Your task to perform on an android device: Search for "razer deathadder" on target.com, select the first entry, and add it to the cart. Image 0: 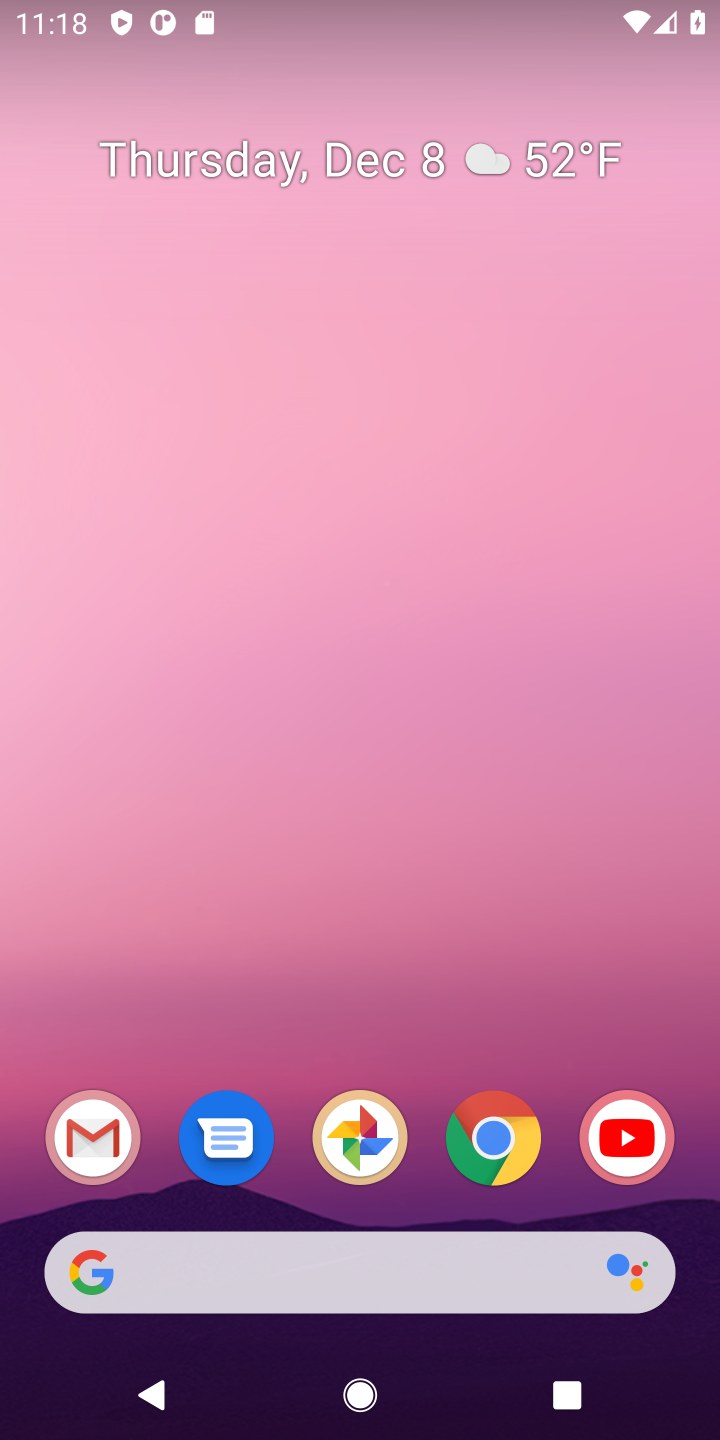
Step 0: click (498, 1137)
Your task to perform on an android device: Search for "razer deathadder" on target.com, select the first entry, and add it to the cart. Image 1: 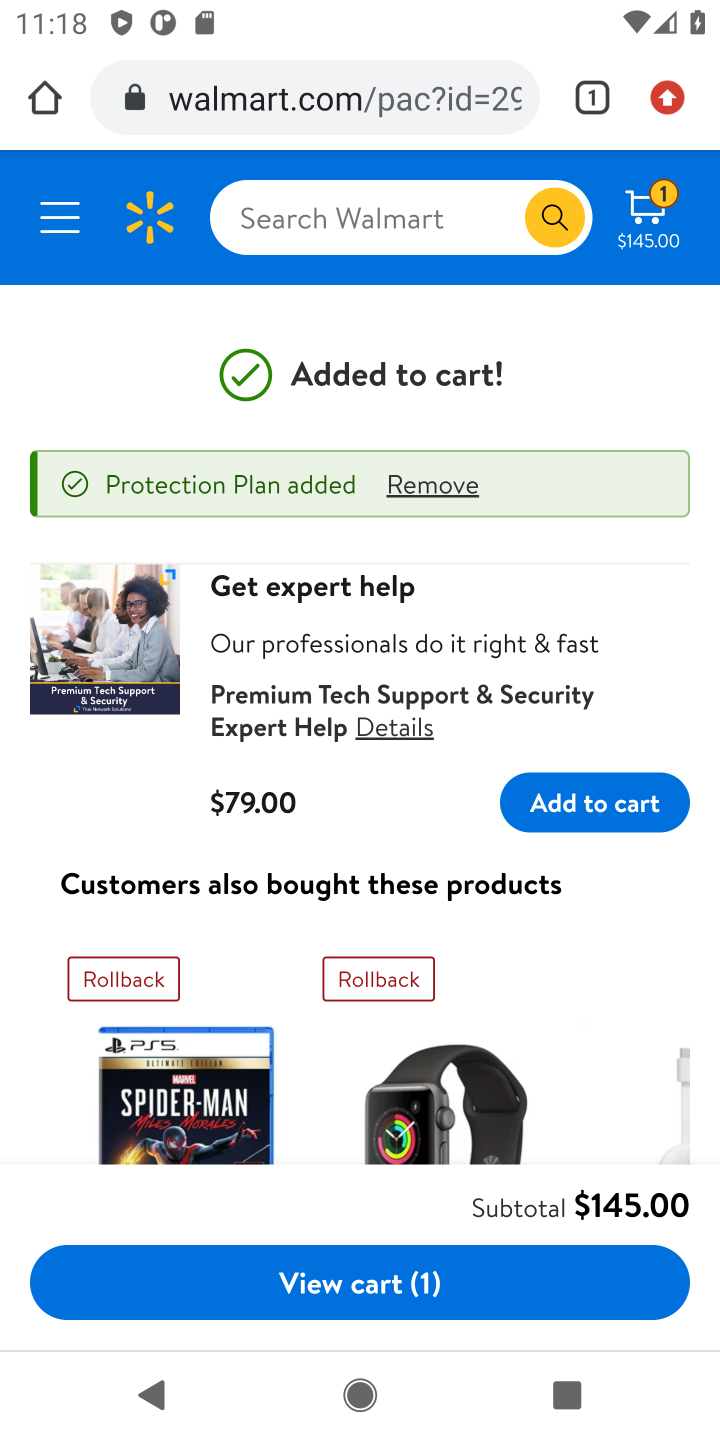
Step 1: click (220, 99)
Your task to perform on an android device: Search for "razer deathadder" on target.com, select the first entry, and add it to the cart. Image 2: 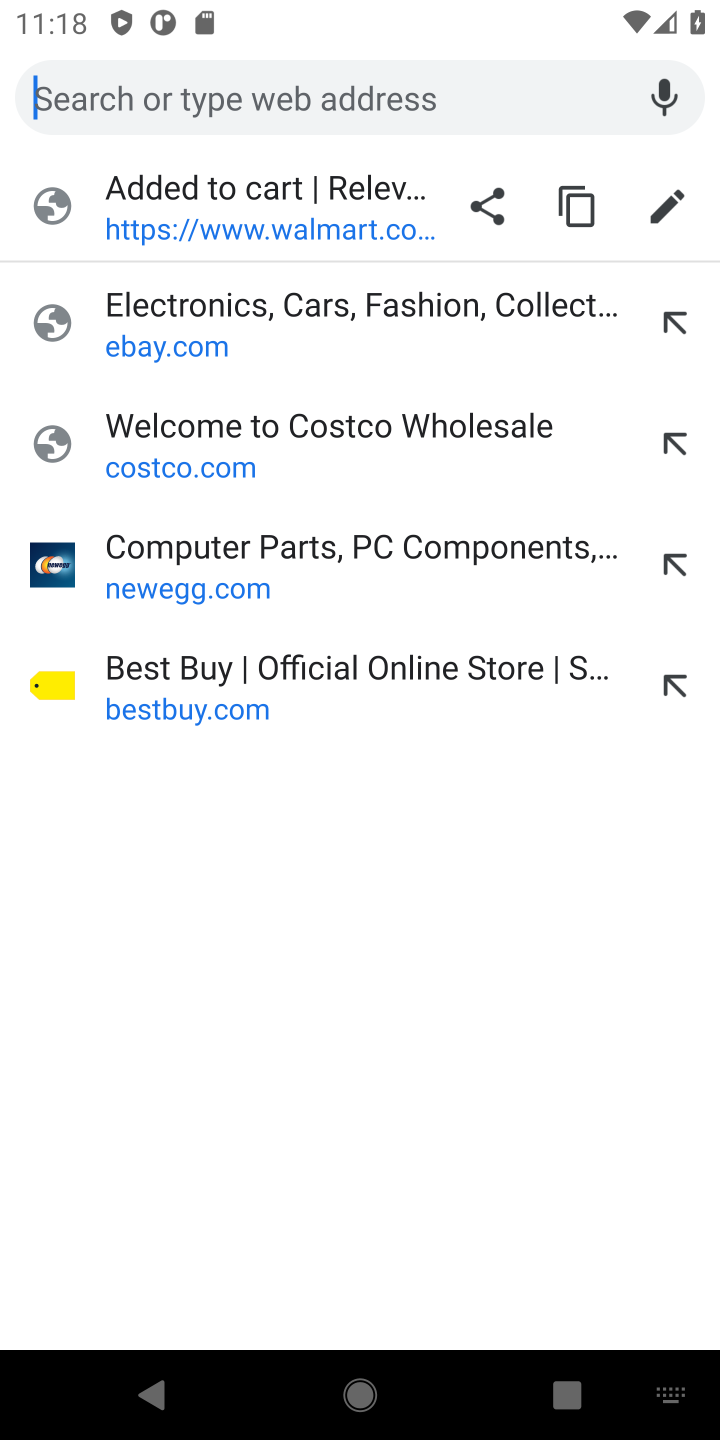
Step 2: type "target.com"
Your task to perform on an android device: Search for "razer deathadder" on target.com, select the first entry, and add it to the cart. Image 3: 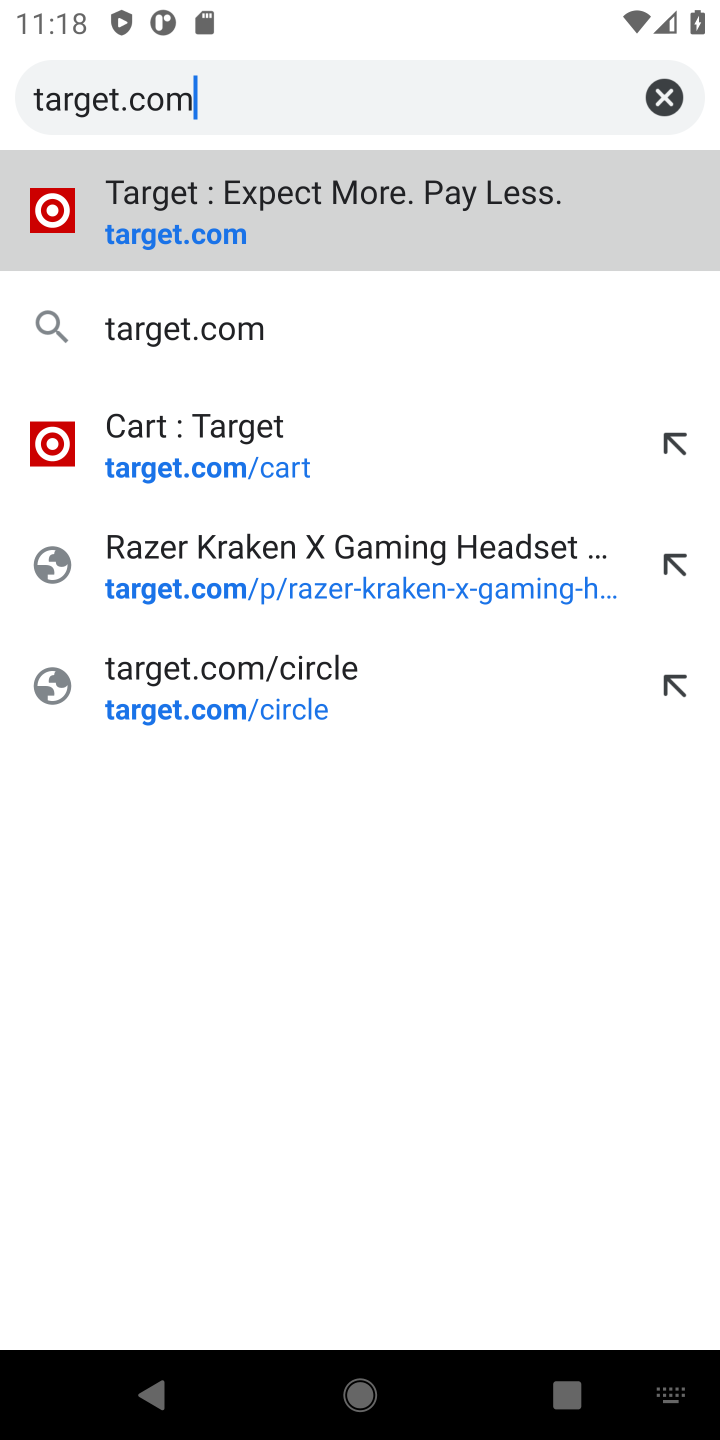
Step 3: click (367, 241)
Your task to perform on an android device: Search for "razer deathadder" on target.com, select the first entry, and add it to the cart. Image 4: 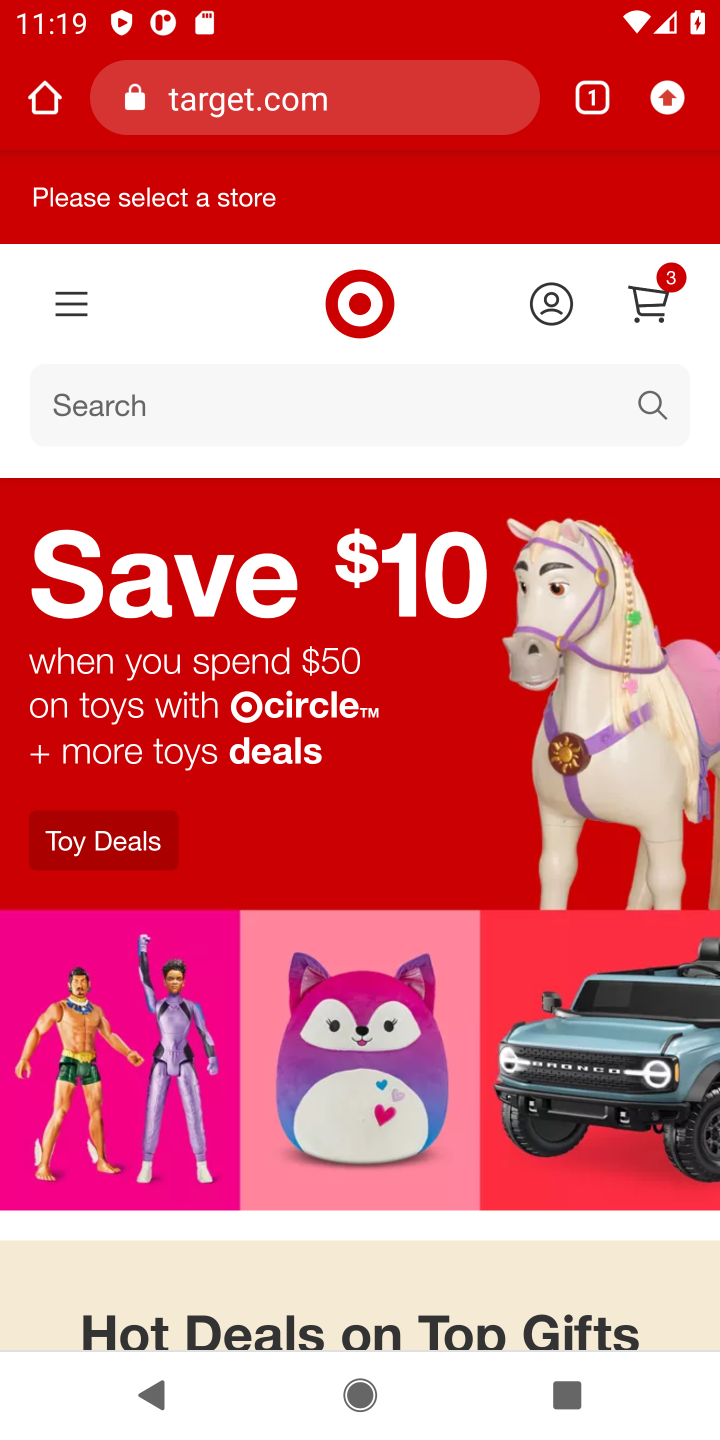
Step 4: click (273, 422)
Your task to perform on an android device: Search for "razer deathadder" on target.com, select the first entry, and add it to the cart. Image 5: 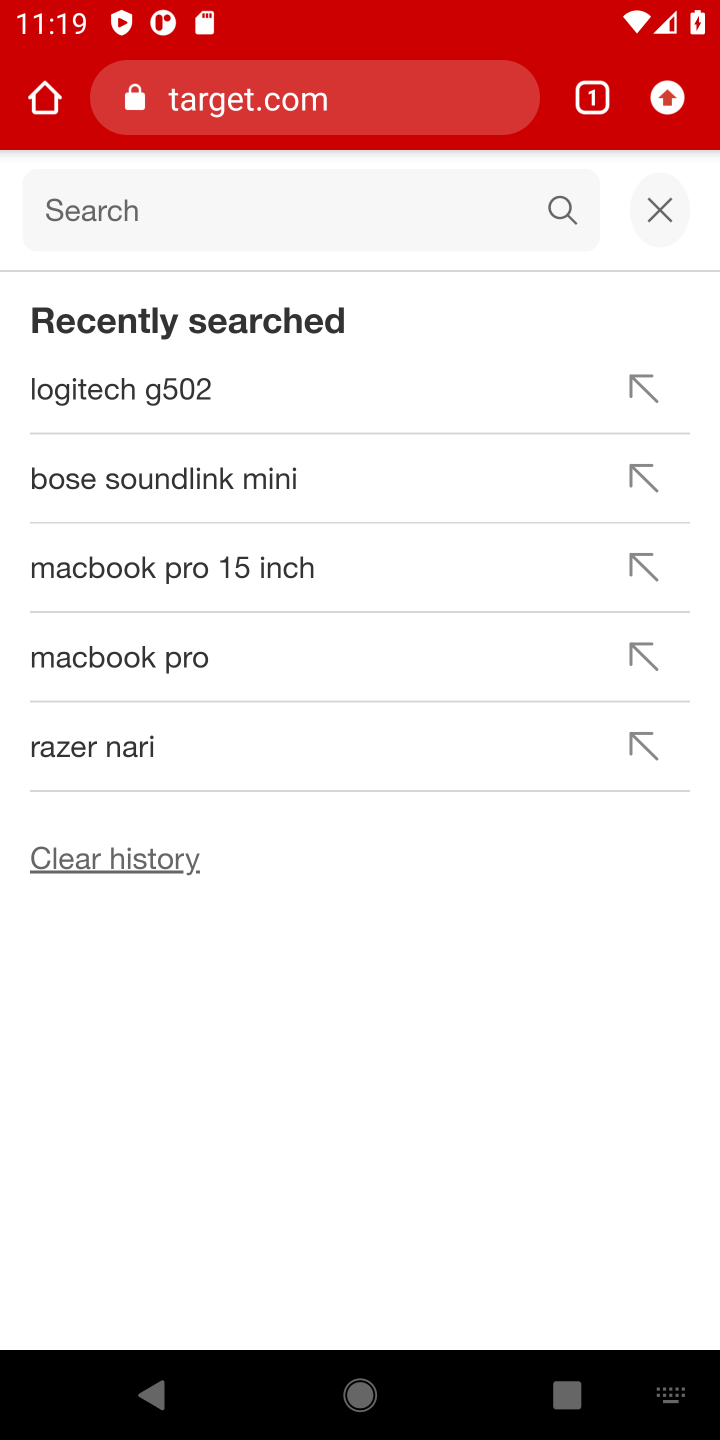
Step 5: type "razer deathadder"
Your task to perform on an android device: Search for "razer deathadder" on target.com, select the first entry, and add it to the cart. Image 6: 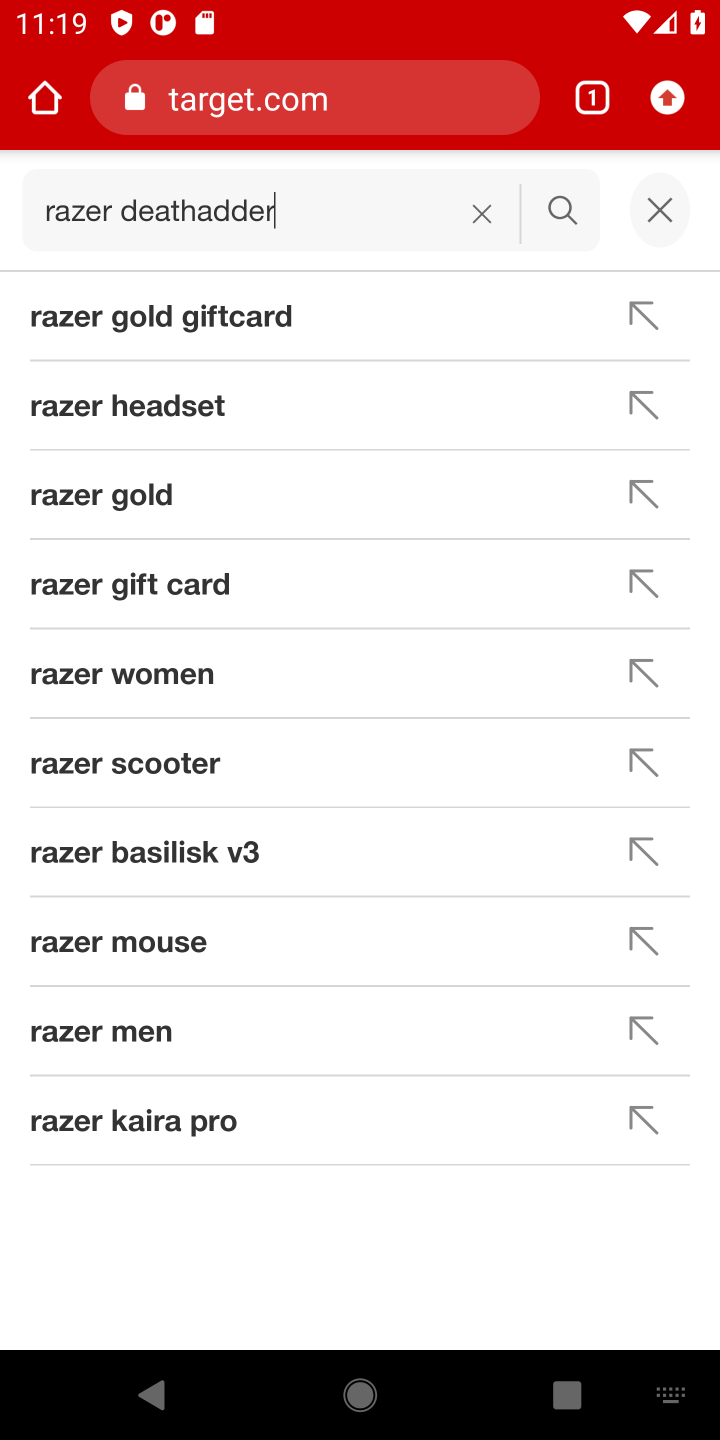
Step 6: press enter
Your task to perform on an android device: Search for "razer deathadder" on target.com, select the first entry, and add it to the cart. Image 7: 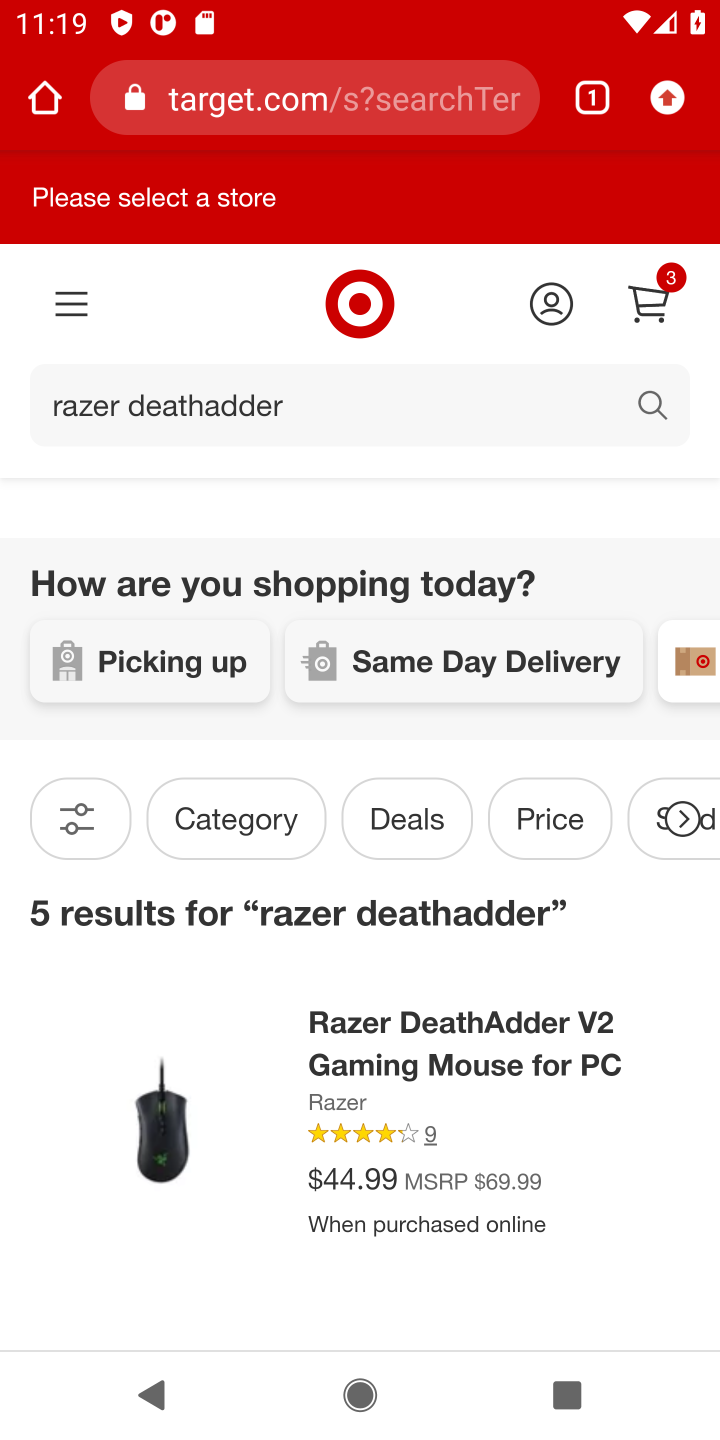
Step 7: drag from (571, 967) to (425, 724)
Your task to perform on an android device: Search for "razer deathadder" on target.com, select the first entry, and add it to the cart. Image 8: 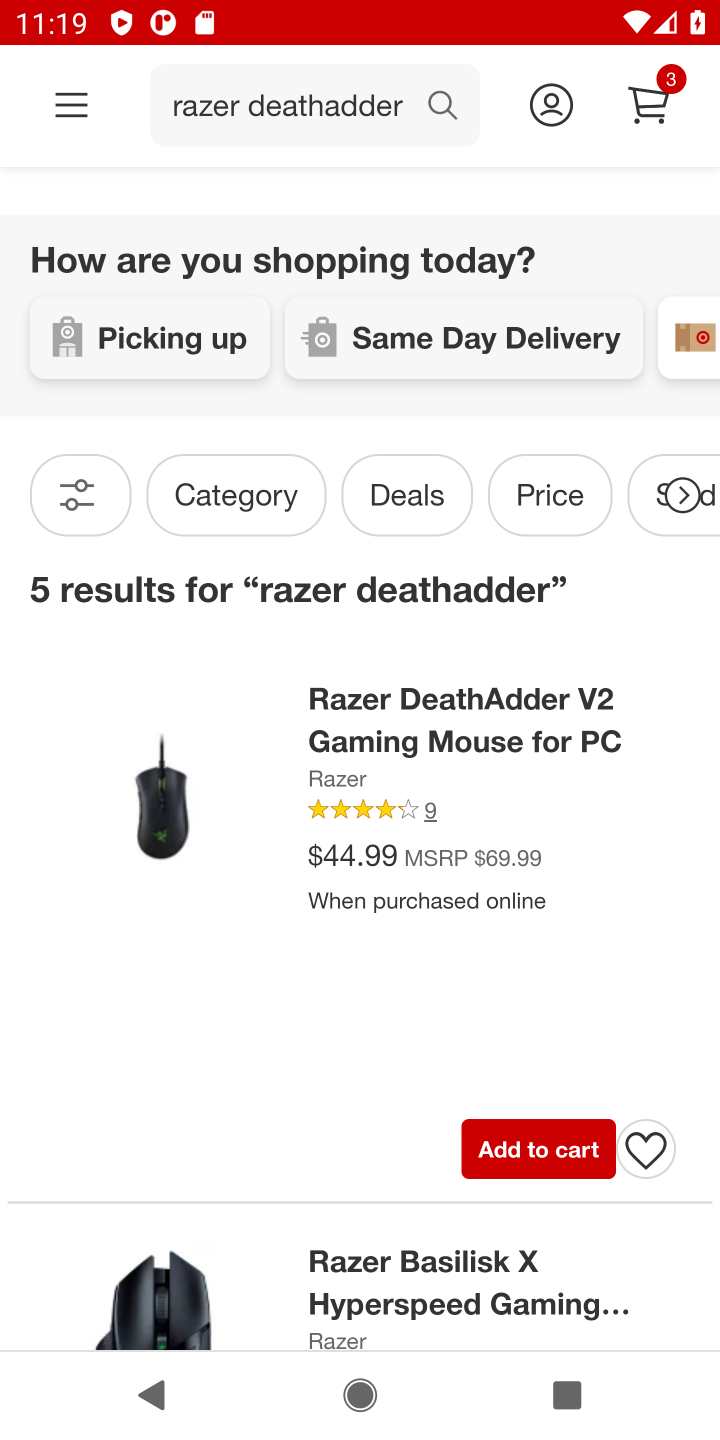
Step 8: click (572, 1152)
Your task to perform on an android device: Search for "razer deathadder" on target.com, select the first entry, and add it to the cart. Image 9: 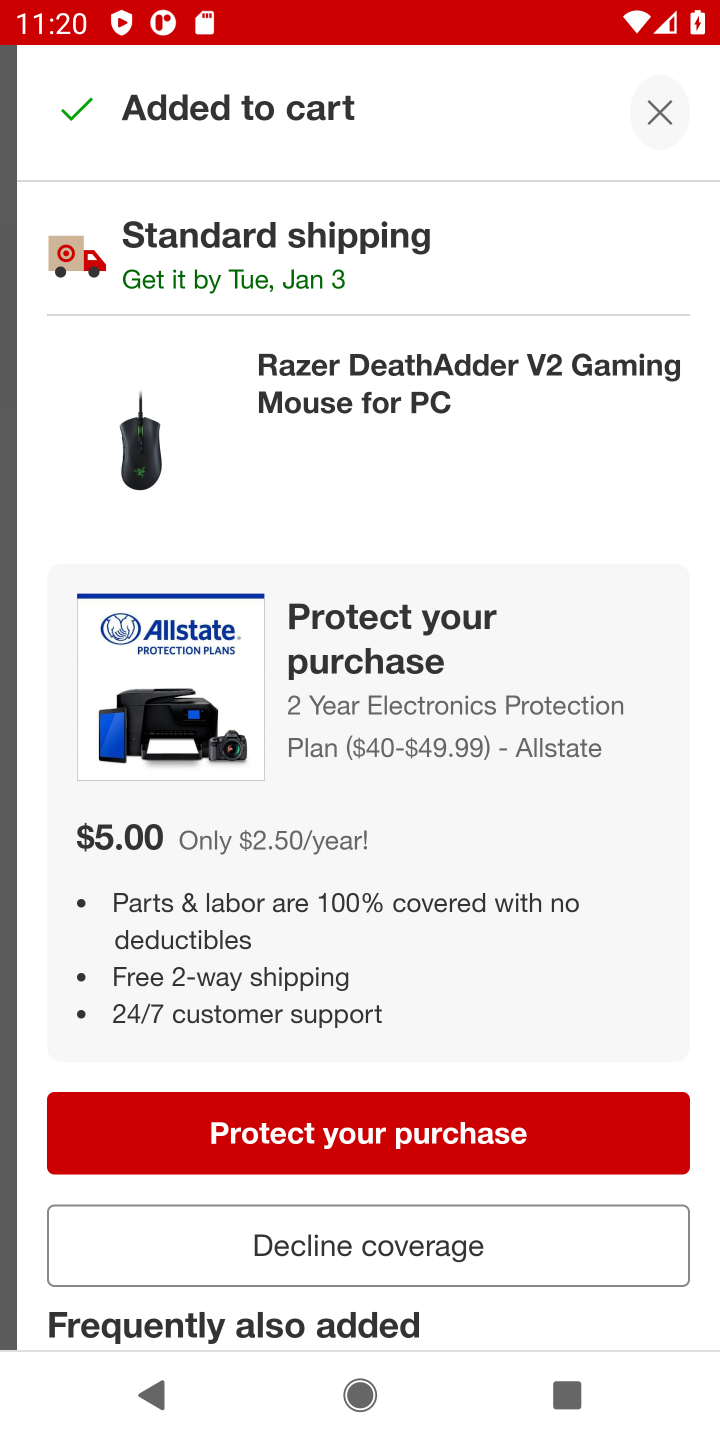
Step 9: click (448, 1132)
Your task to perform on an android device: Search for "razer deathadder" on target.com, select the first entry, and add it to the cart. Image 10: 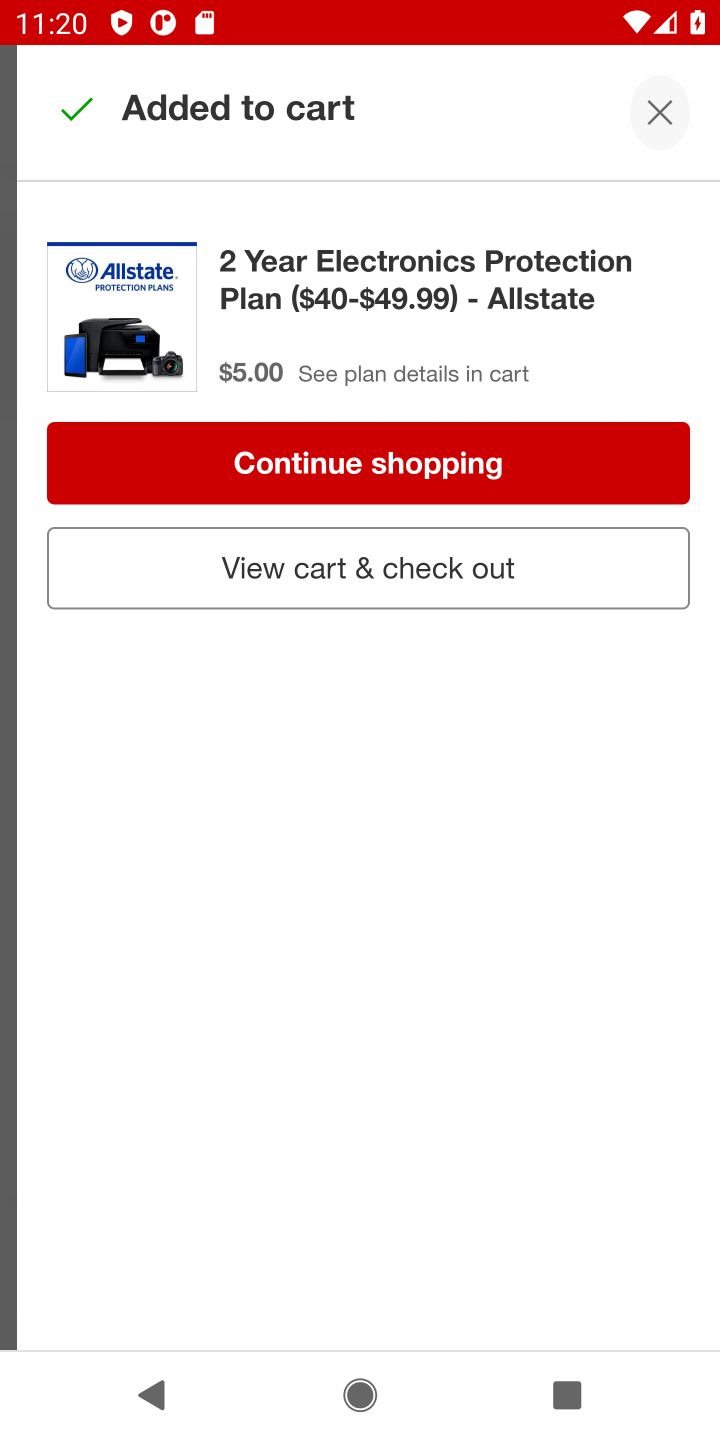
Step 10: click (418, 579)
Your task to perform on an android device: Search for "razer deathadder" on target.com, select the first entry, and add it to the cart. Image 11: 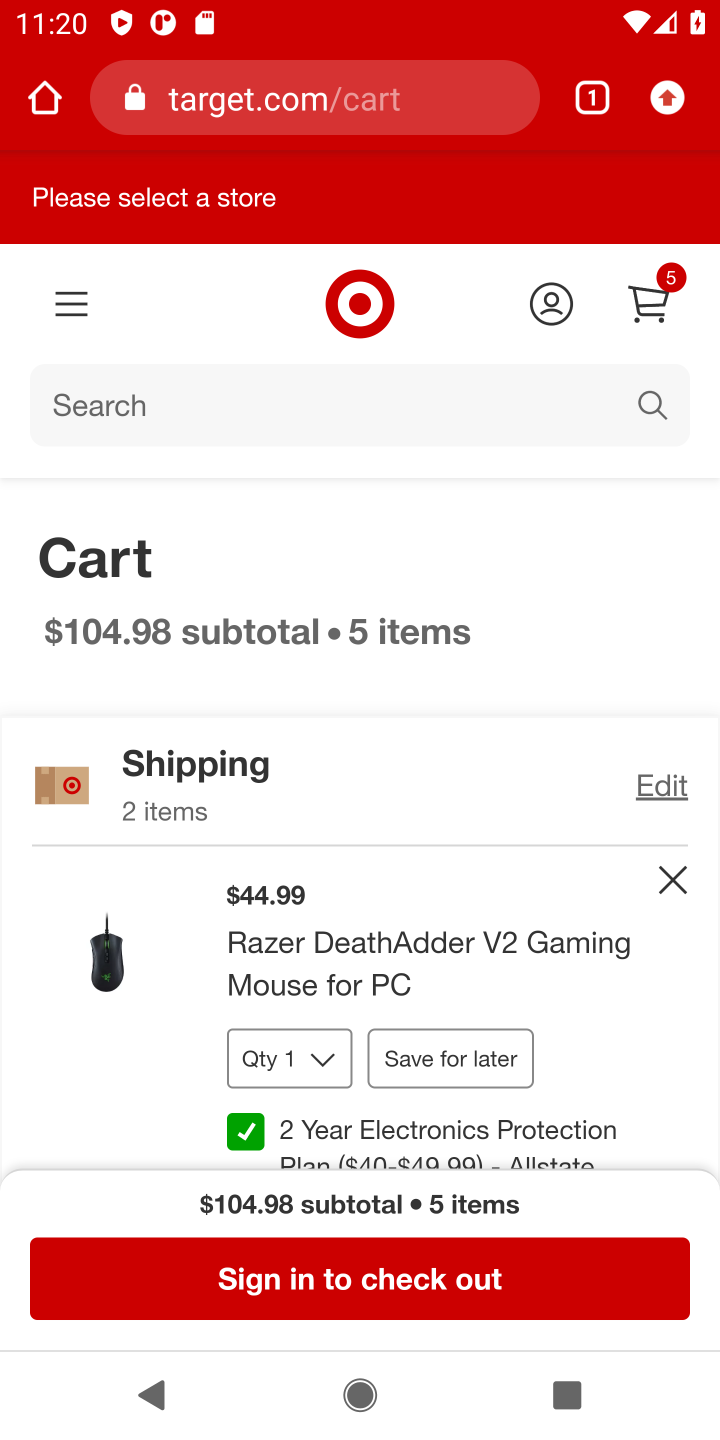
Step 11: click (372, 1292)
Your task to perform on an android device: Search for "razer deathadder" on target.com, select the first entry, and add it to the cart. Image 12: 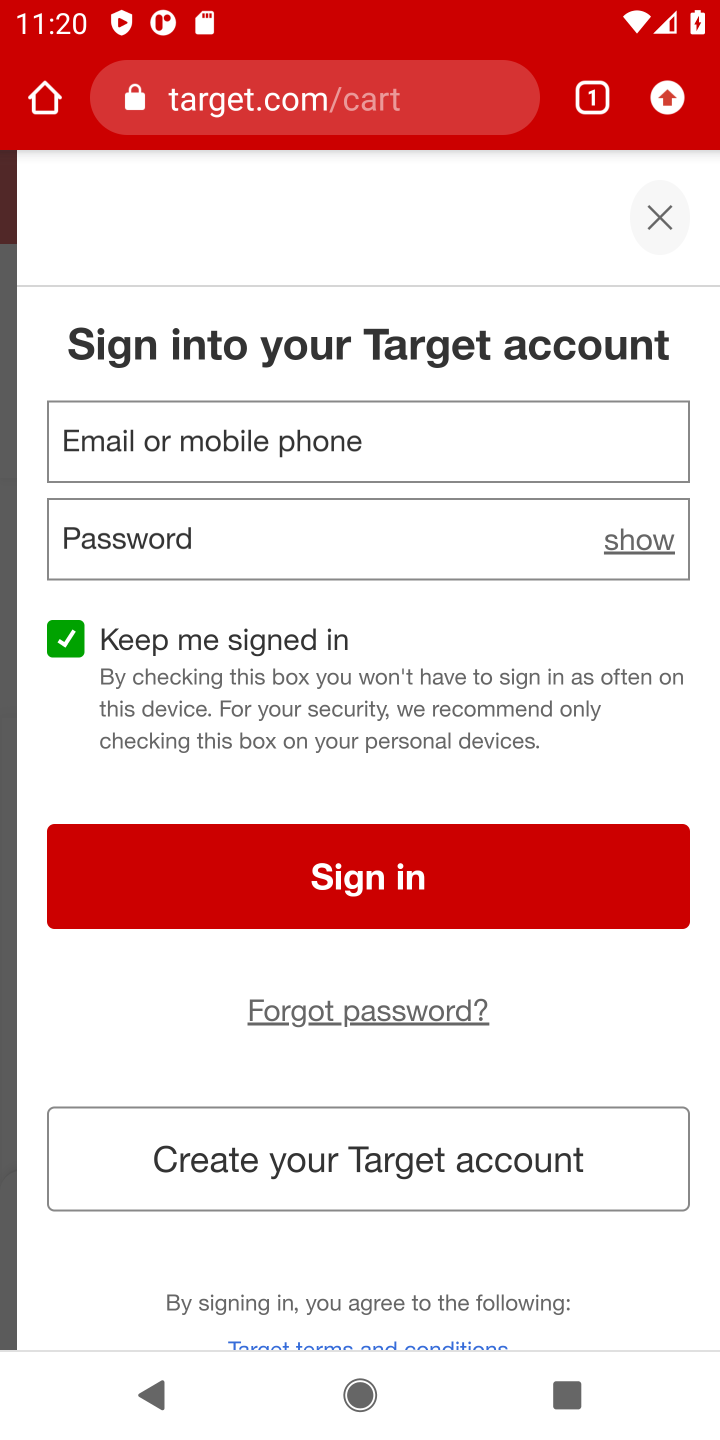
Step 12: task complete